Your task to perform on an android device: change the clock display to digital Image 0: 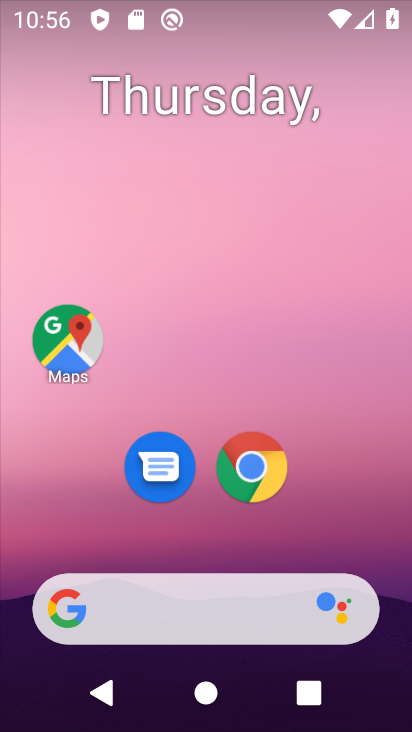
Step 0: drag from (190, 548) to (228, 180)
Your task to perform on an android device: change the clock display to digital Image 1: 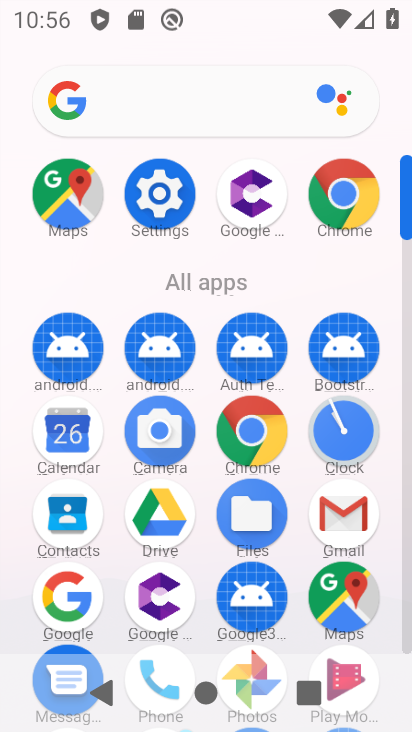
Step 1: drag from (200, 293) to (211, 71)
Your task to perform on an android device: change the clock display to digital Image 2: 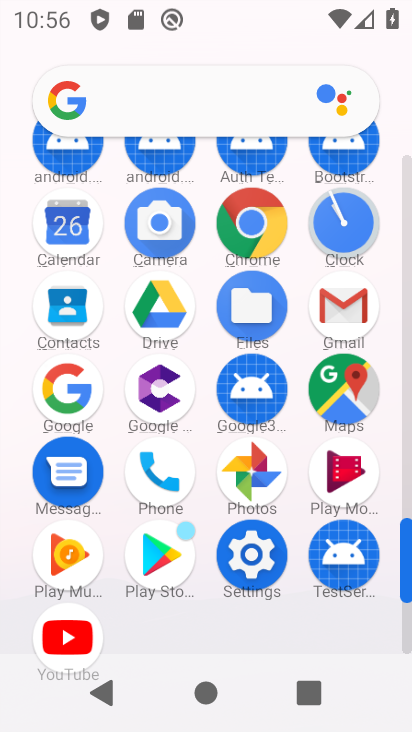
Step 2: click (336, 242)
Your task to perform on an android device: change the clock display to digital Image 3: 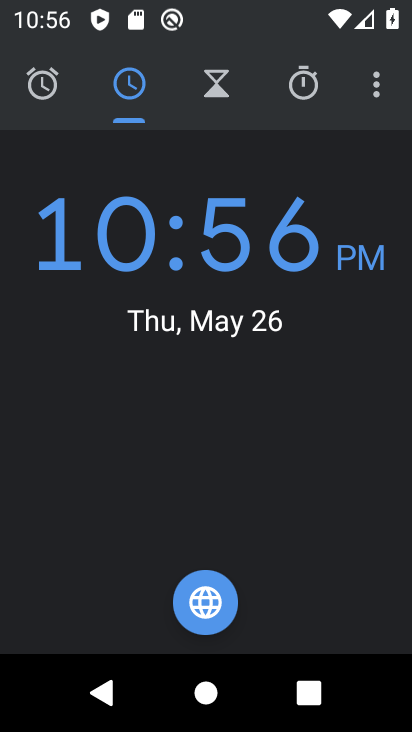
Step 3: click (379, 93)
Your task to perform on an android device: change the clock display to digital Image 4: 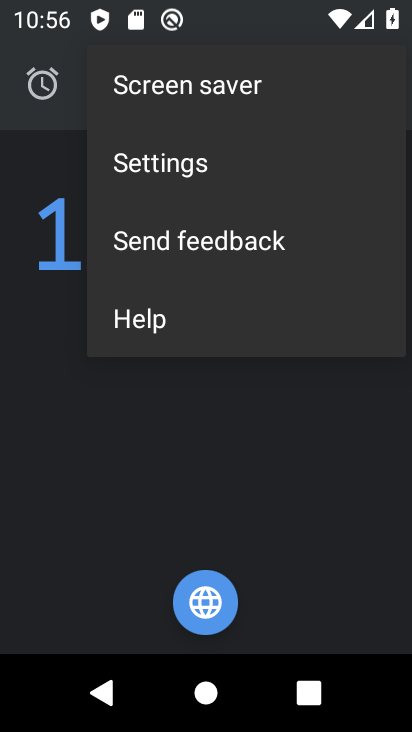
Step 4: click (258, 178)
Your task to perform on an android device: change the clock display to digital Image 5: 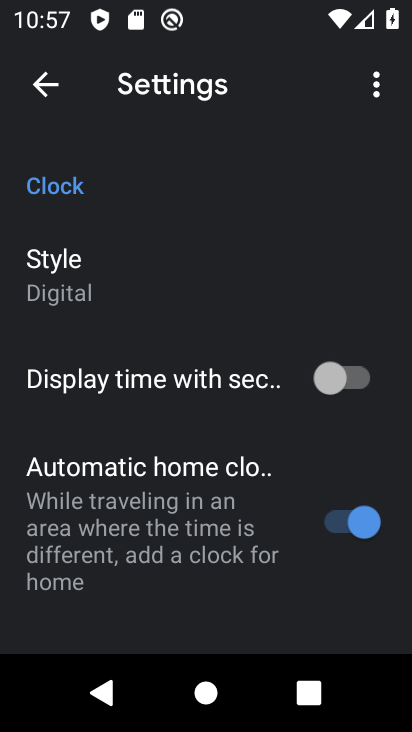
Step 5: task complete